Your task to perform on an android device: add a contact Image 0: 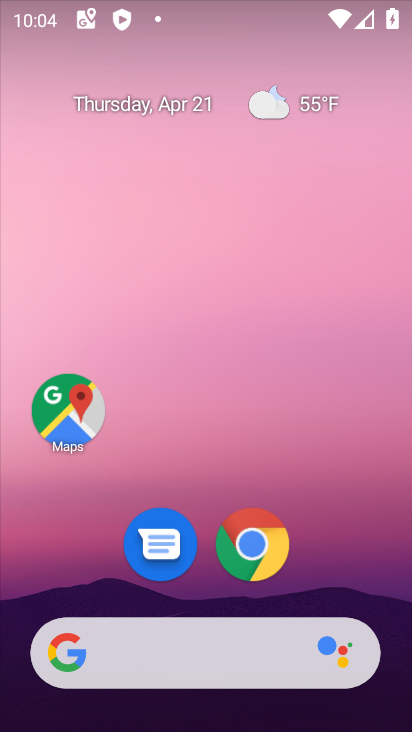
Step 0: drag from (328, 485) to (262, 36)
Your task to perform on an android device: add a contact Image 1: 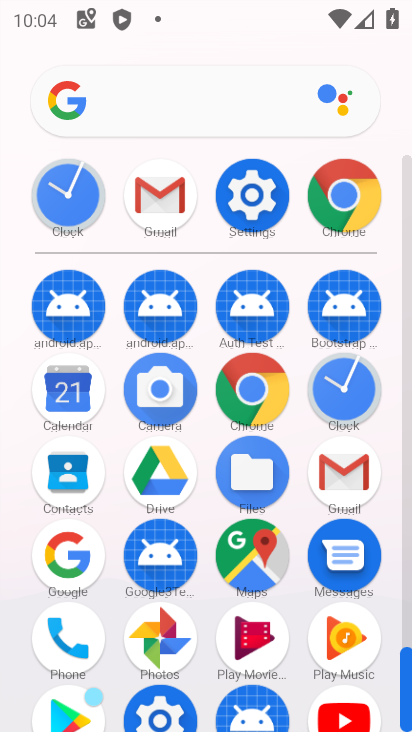
Step 1: drag from (12, 618) to (14, 382)
Your task to perform on an android device: add a contact Image 2: 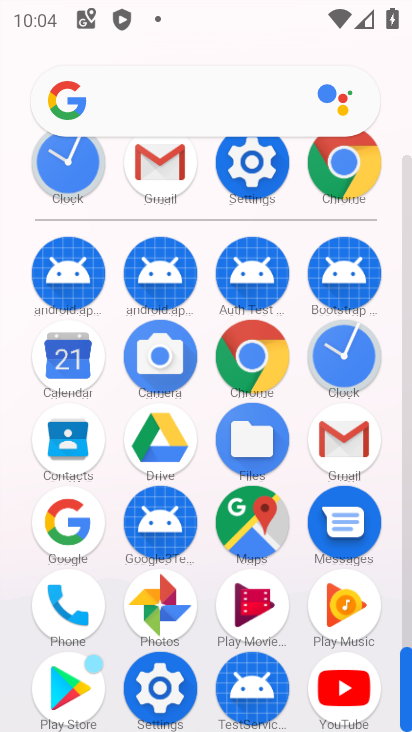
Step 2: click (60, 438)
Your task to perform on an android device: add a contact Image 3: 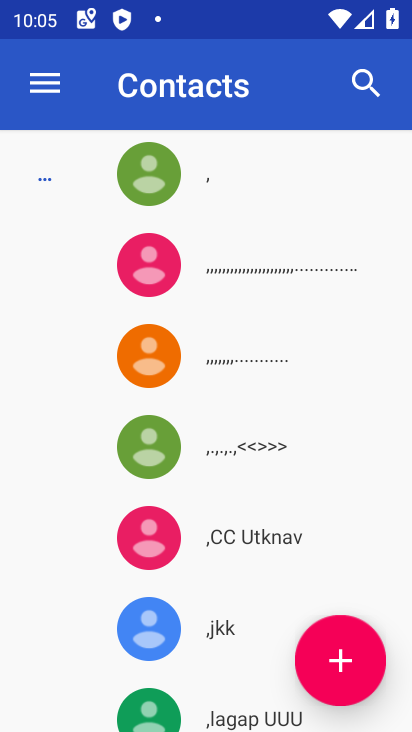
Step 3: click (328, 667)
Your task to perform on an android device: add a contact Image 4: 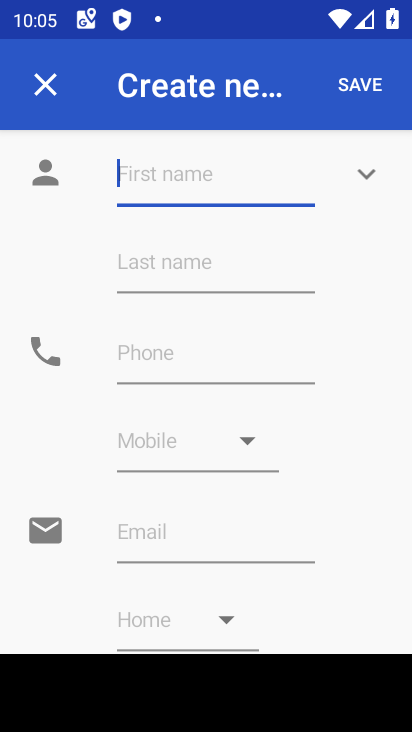
Step 4: type "Lkihg"
Your task to perform on an android device: add a contact Image 5: 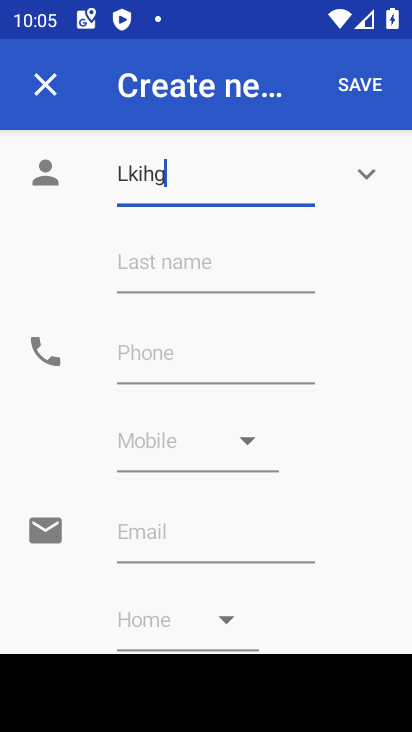
Step 5: type ""
Your task to perform on an android device: add a contact Image 6: 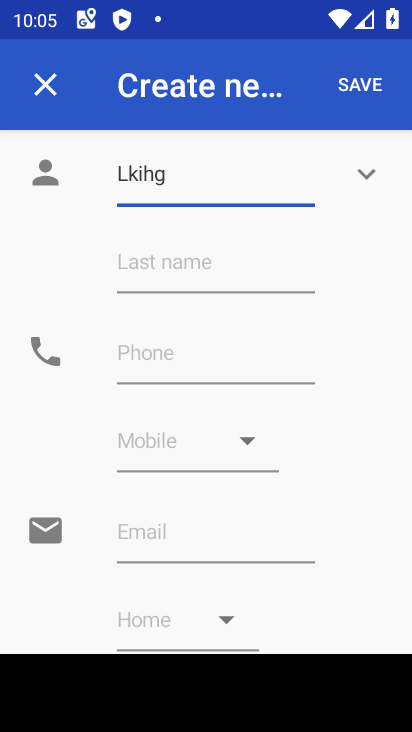
Step 6: click (203, 274)
Your task to perform on an android device: add a contact Image 7: 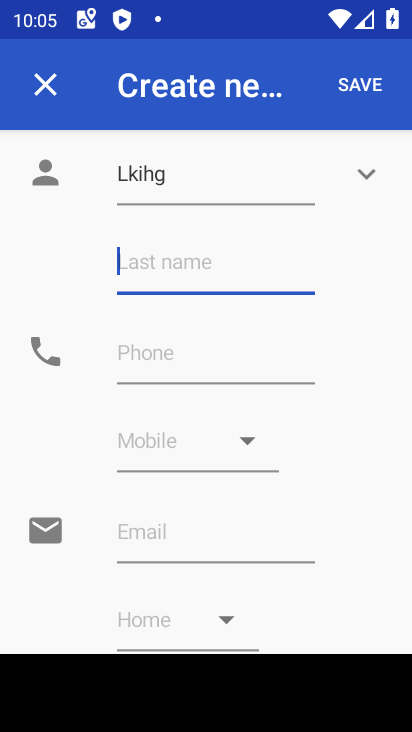
Step 7: type "Sho"
Your task to perform on an android device: add a contact Image 8: 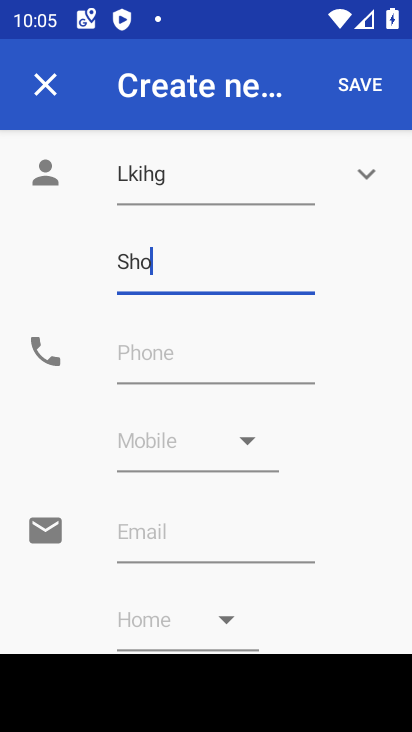
Step 8: type ""
Your task to perform on an android device: add a contact Image 9: 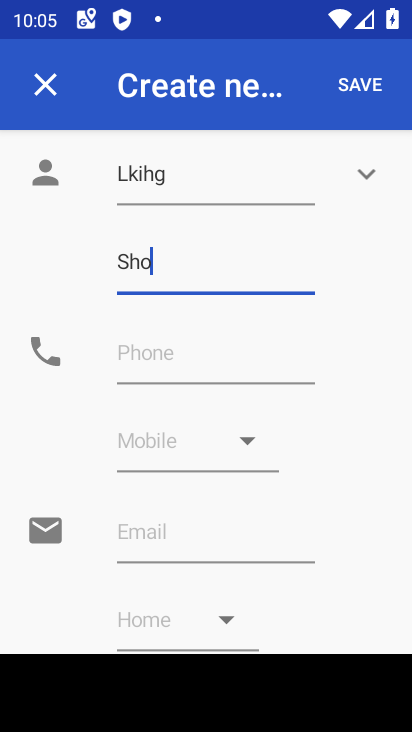
Step 9: click (159, 361)
Your task to perform on an android device: add a contact Image 10: 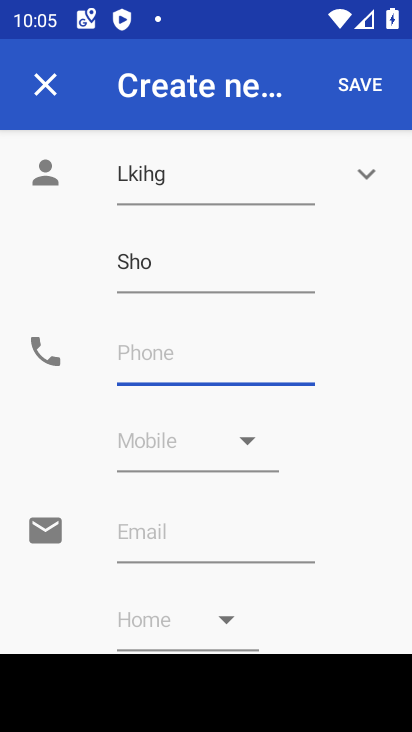
Step 10: type "446998867"
Your task to perform on an android device: add a contact Image 11: 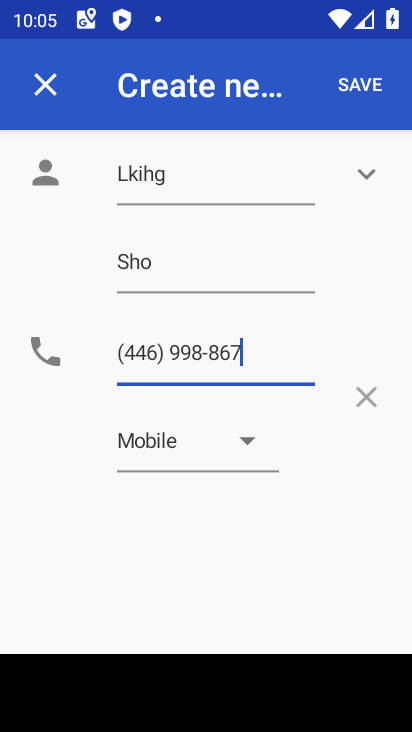
Step 11: type ""
Your task to perform on an android device: add a contact Image 12: 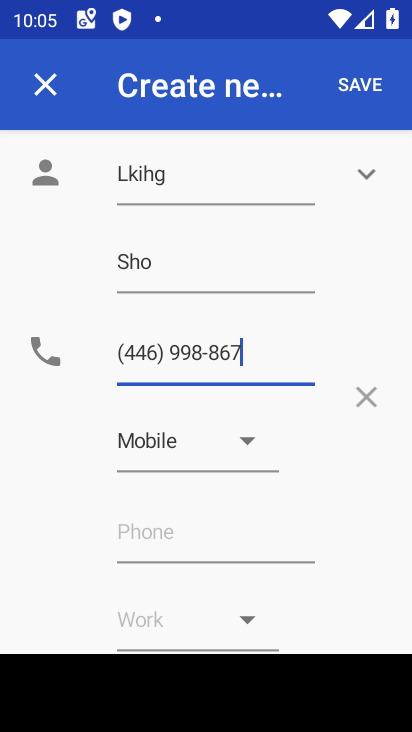
Step 12: click (363, 83)
Your task to perform on an android device: add a contact Image 13: 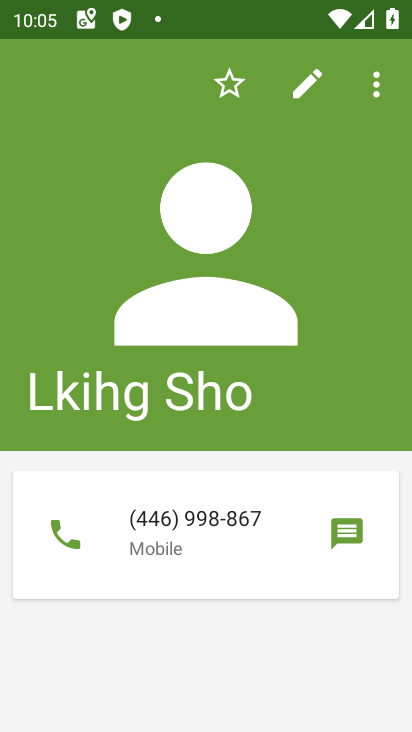
Step 13: task complete